Your task to perform on an android device: Do I have any events today? Image 0: 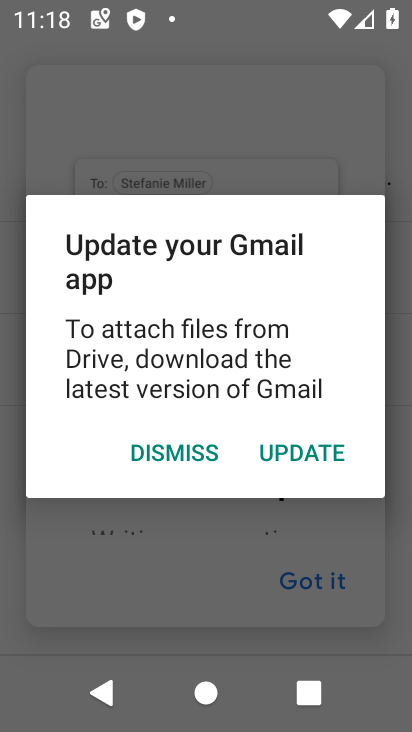
Step 0: press home button
Your task to perform on an android device: Do I have any events today? Image 1: 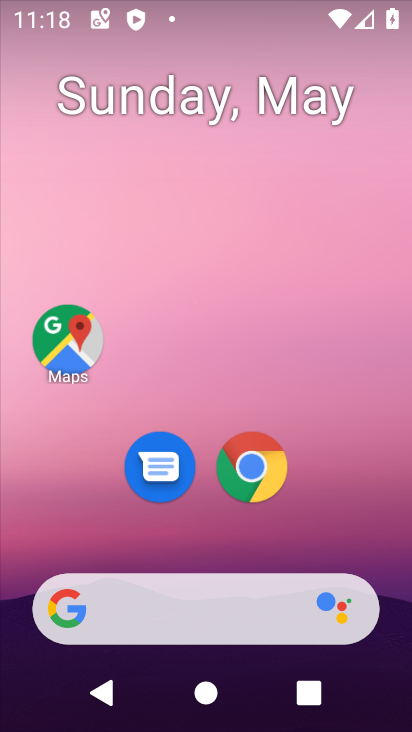
Step 1: drag from (341, 545) to (268, 5)
Your task to perform on an android device: Do I have any events today? Image 2: 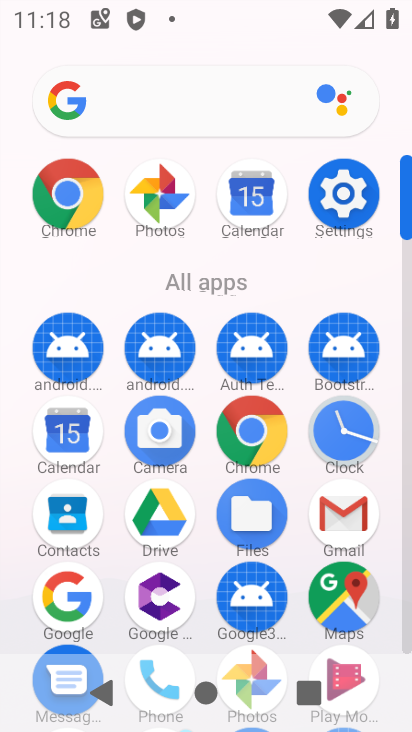
Step 2: click (243, 191)
Your task to perform on an android device: Do I have any events today? Image 3: 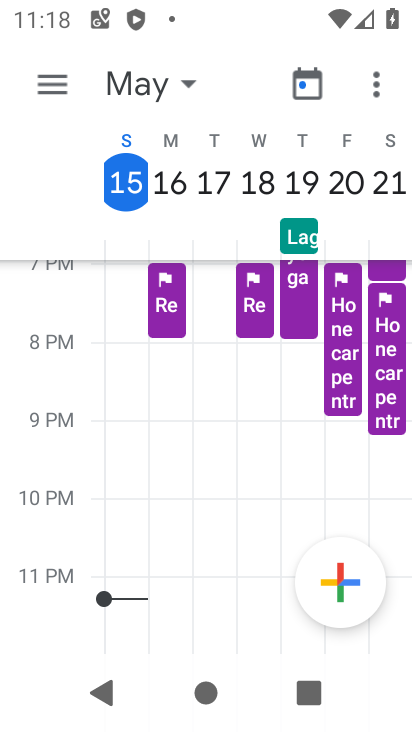
Step 3: click (42, 78)
Your task to perform on an android device: Do I have any events today? Image 4: 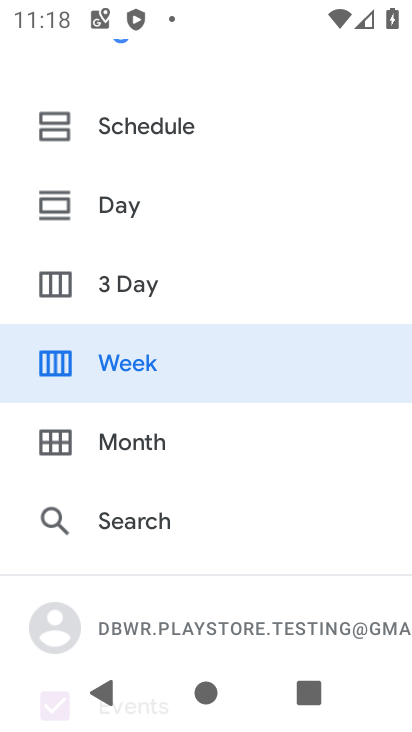
Step 4: click (86, 133)
Your task to perform on an android device: Do I have any events today? Image 5: 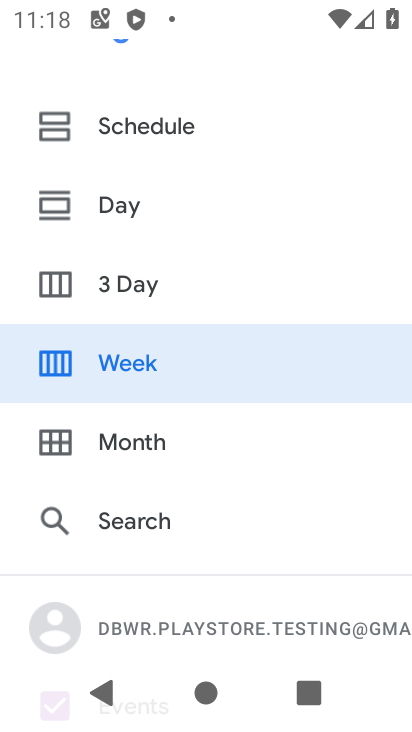
Step 5: click (95, 128)
Your task to perform on an android device: Do I have any events today? Image 6: 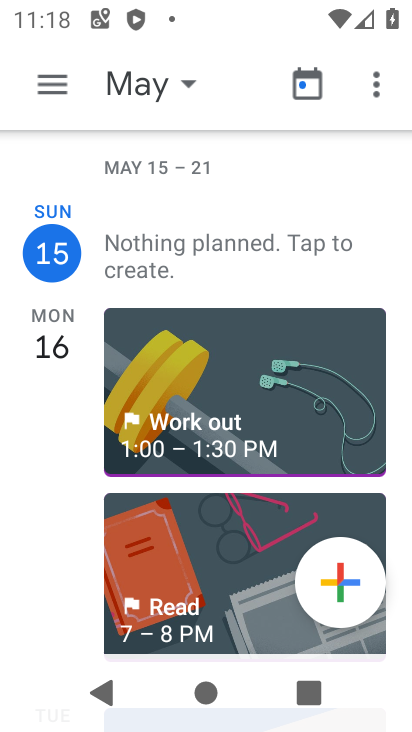
Step 6: click (156, 272)
Your task to perform on an android device: Do I have any events today? Image 7: 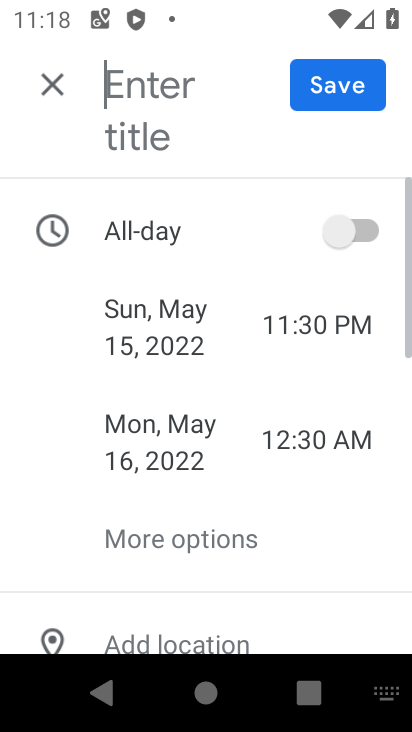
Step 7: task complete